Your task to perform on an android device: add a contact in the contacts app Image 0: 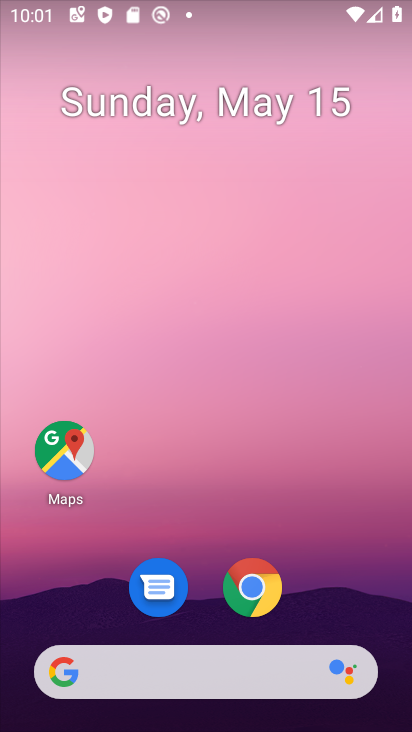
Step 0: drag from (395, 636) to (289, 32)
Your task to perform on an android device: add a contact in the contacts app Image 1: 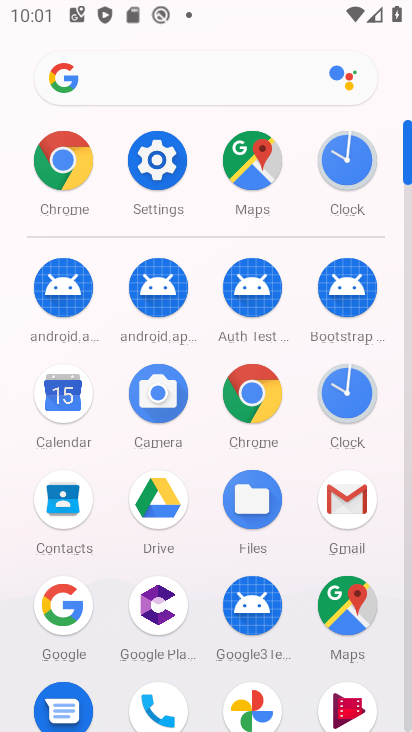
Step 1: click (63, 512)
Your task to perform on an android device: add a contact in the contacts app Image 2: 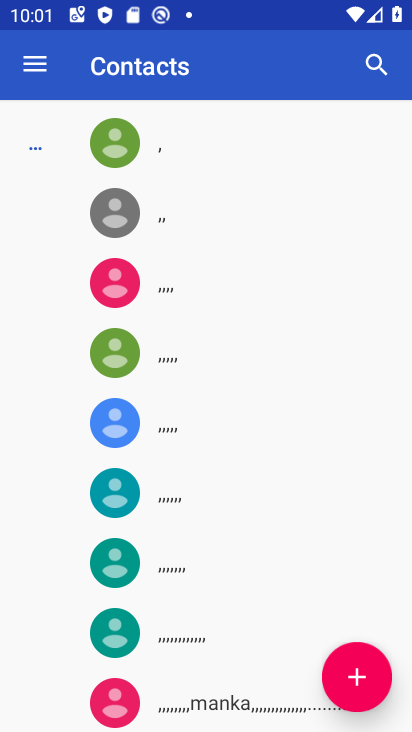
Step 2: click (360, 658)
Your task to perform on an android device: add a contact in the contacts app Image 3: 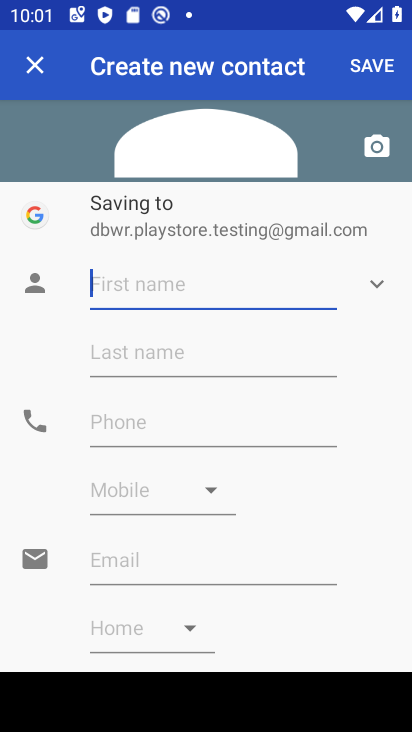
Step 3: type "kapil"
Your task to perform on an android device: add a contact in the contacts app Image 4: 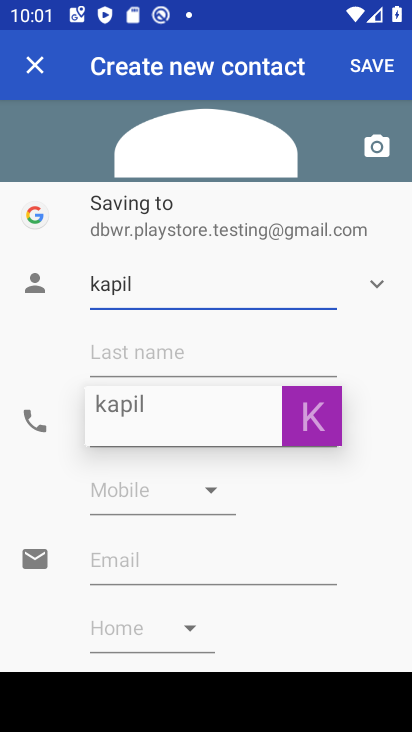
Step 4: type " "
Your task to perform on an android device: add a contact in the contacts app Image 5: 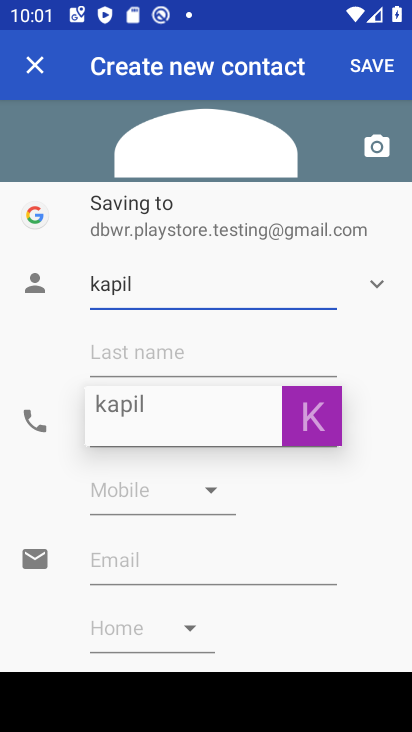
Step 5: click (384, 66)
Your task to perform on an android device: add a contact in the contacts app Image 6: 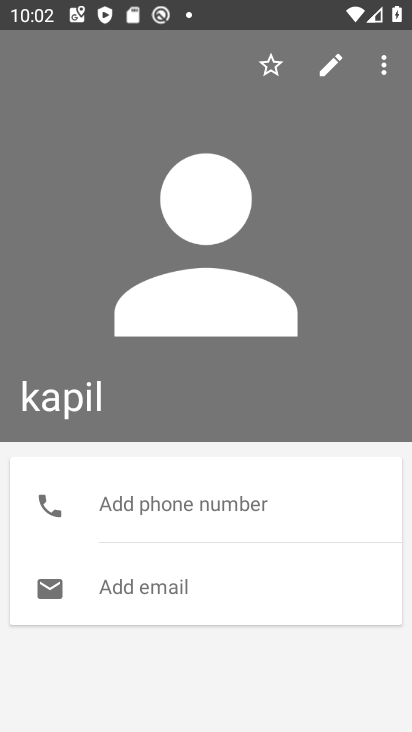
Step 6: task complete